Your task to perform on an android device: turn pop-ups on in chrome Image 0: 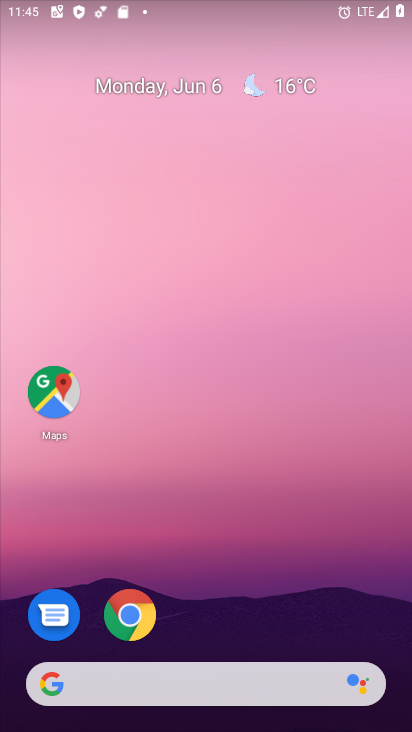
Step 0: press home button
Your task to perform on an android device: turn pop-ups on in chrome Image 1: 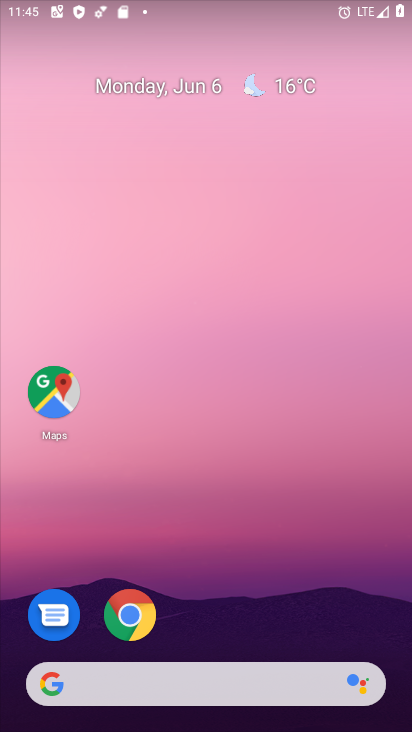
Step 1: click (125, 614)
Your task to perform on an android device: turn pop-ups on in chrome Image 2: 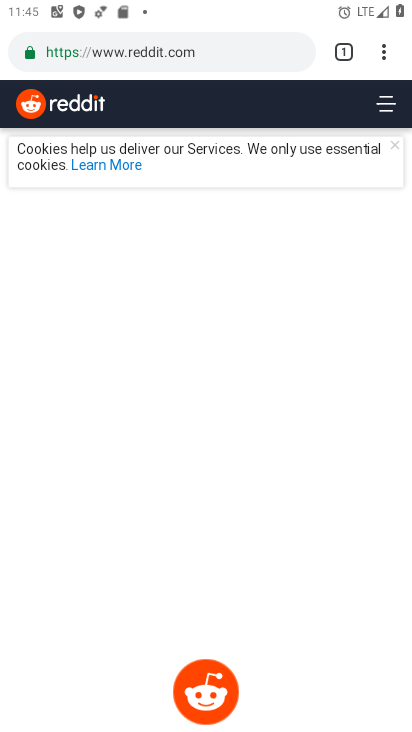
Step 2: click (381, 42)
Your task to perform on an android device: turn pop-ups on in chrome Image 3: 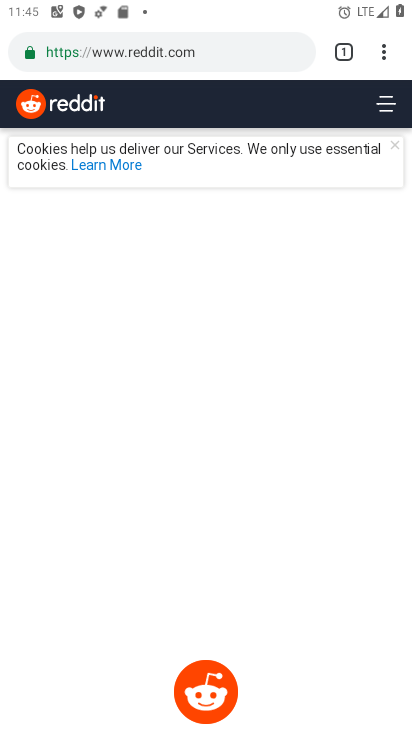
Step 3: click (381, 42)
Your task to perform on an android device: turn pop-ups on in chrome Image 4: 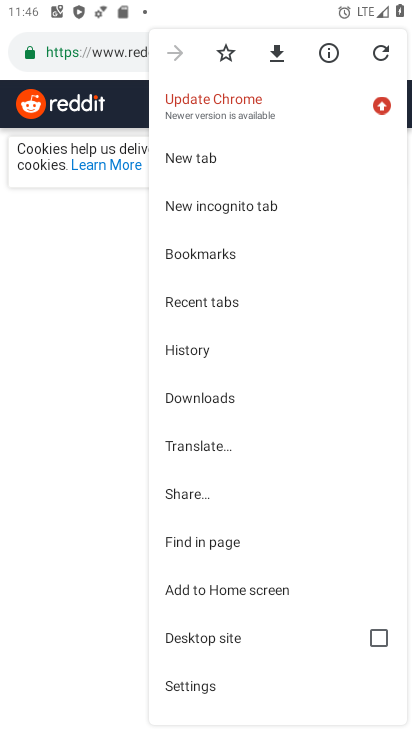
Step 4: click (224, 676)
Your task to perform on an android device: turn pop-ups on in chrome Image 5: 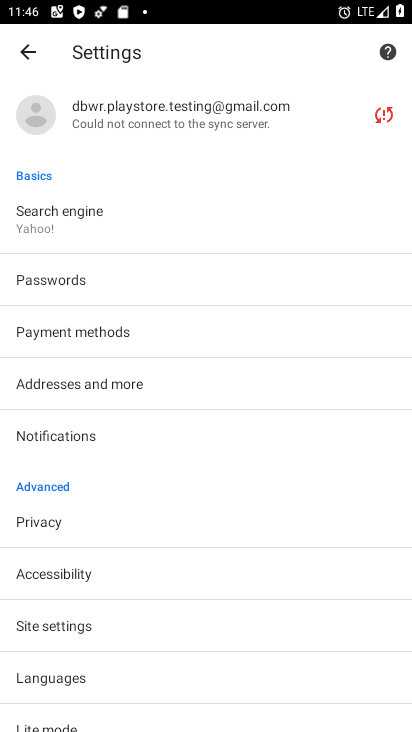
Step 5: click (115, 631)
Your task to perform on an android device: turn pop-ups on in chrome Image 6: 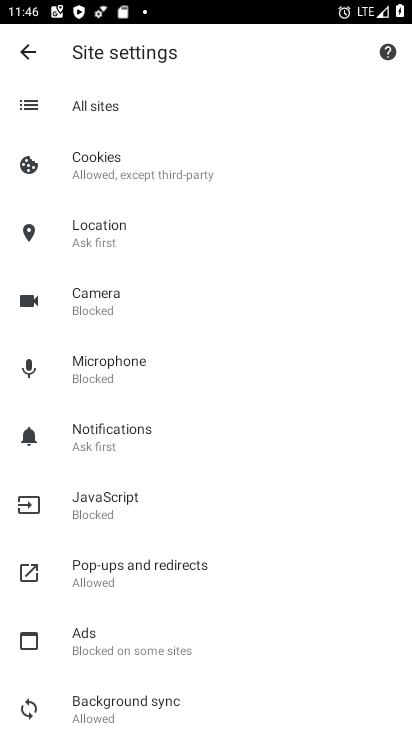
Step 6: click (149, 575)
Your task to perform on an android device: turn pop-ups on in chrome Image 7: 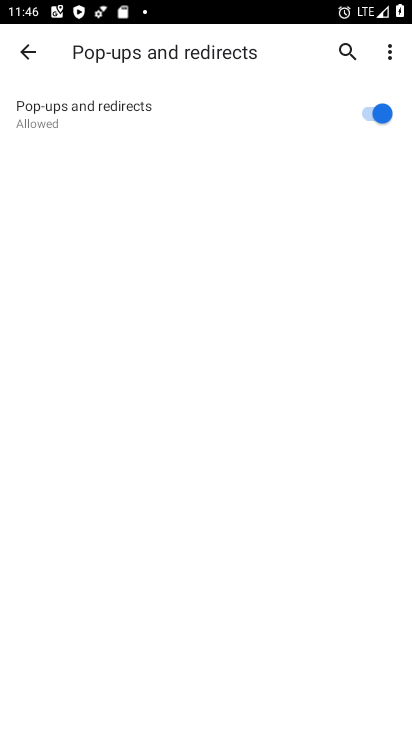
Step 7: task complete